Your task to perform on an android device: Open Youtube and go to the subscriptions tab Image 0: 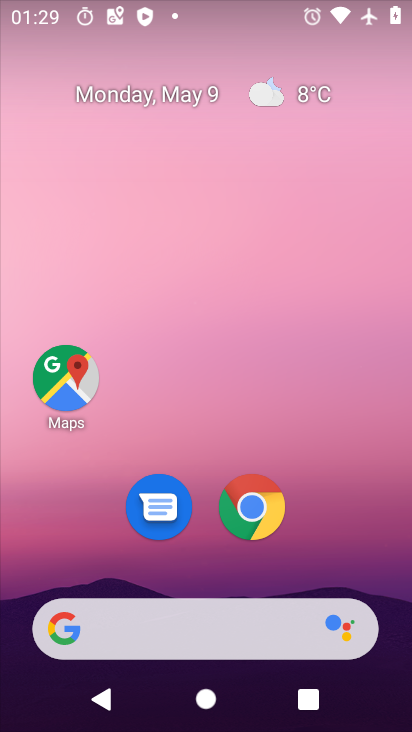
Step 0: drag from (215, 727) to (225, 187)
Your task to perform on an android device: Open Youtube and go to the subscriptions tab Image 1: 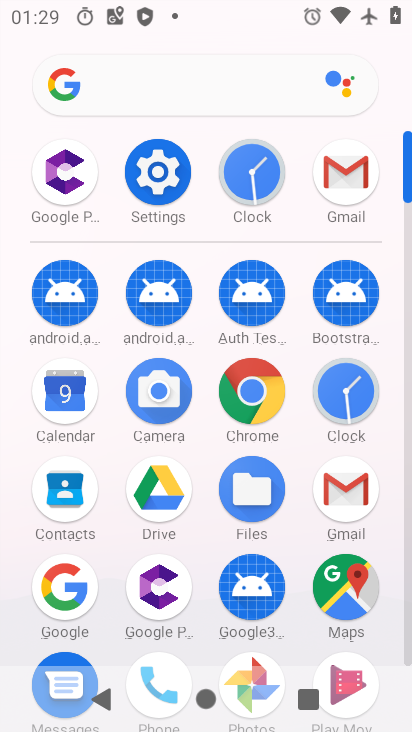
Step 1: drag from (299, 648) to (305, 430)
Your task to perform on an android device: Open Youtube and go to the subscriptions tab Image 2: 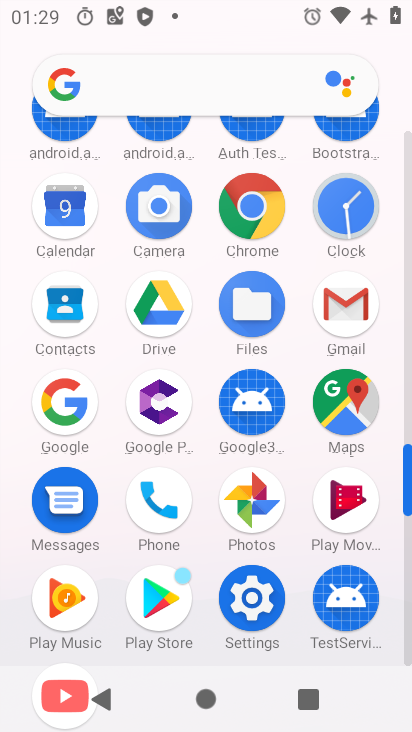
Step 2: click (49, 685)
Your task to perform on an android device: Open Youtube and go to the subscriptions tab Image 3: 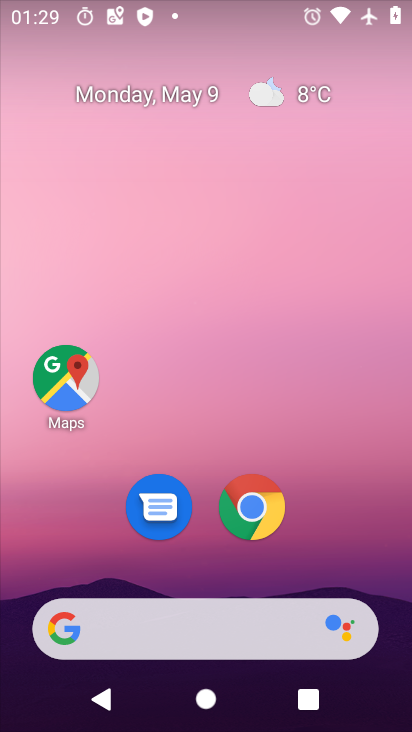
Step 3: drag from (239, 724) to (238, 242)
Your task to perform on an android device: Open Youtube and go to the subscriptions tab Image 4: 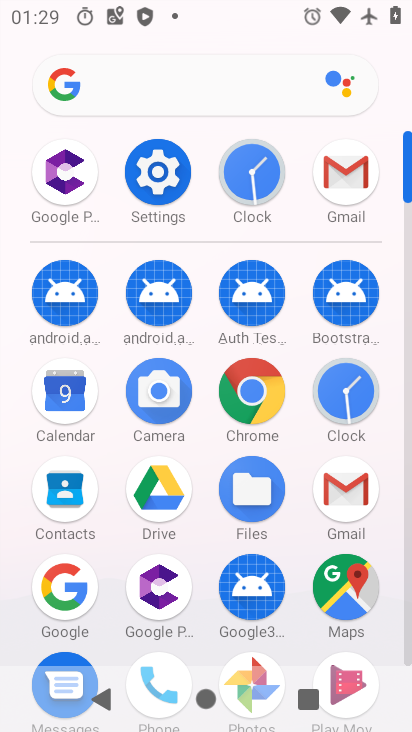
Step 4: drag from (305, 597) to (305, 169)
Your task to perform on an android device: Open Youtube and go to the subscriptions tab Image 5: 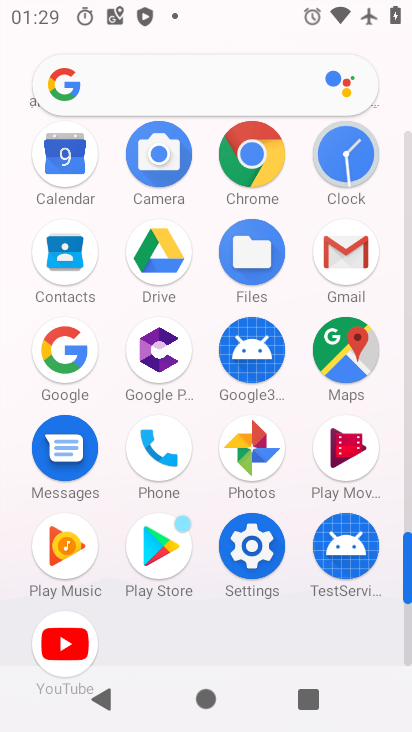
Step 5: click (53, 636)
Your task to perform on an android device: Open Youtube and go to the subscriptions tab Image 6: 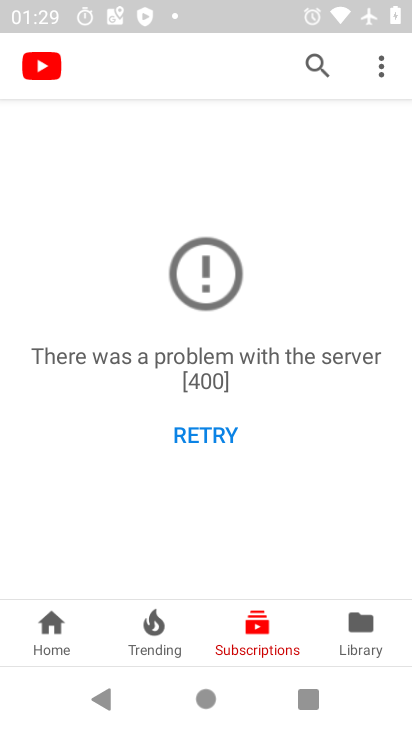
Step 6: click (264, 636)
Your task to perform on an android device: Open Youtube and go to the subscriptions tab Image 7: 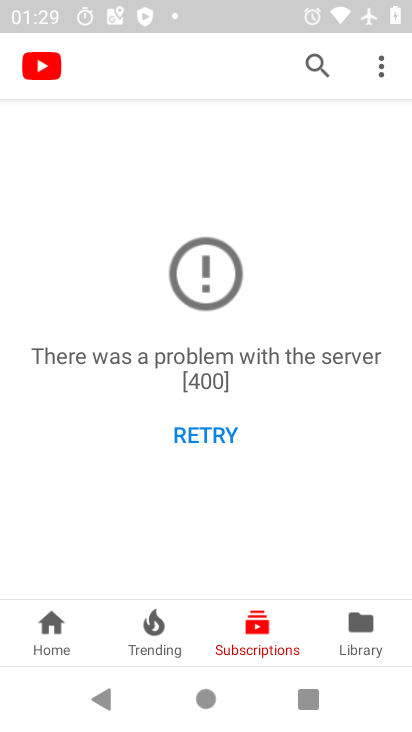
Step 7: click (263, 636)
Your task to perform on an android device: Open Youtube and go to the subscriptions tab Image 8: 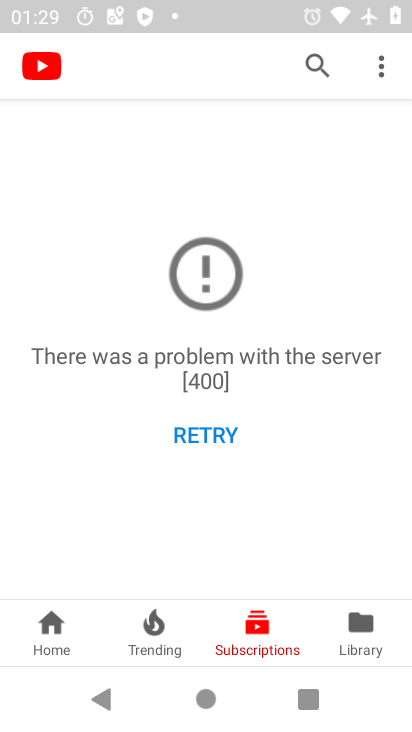
Step 8: task complete